Your task to perform on an android device: Open Chrome and go to settings Image 0: 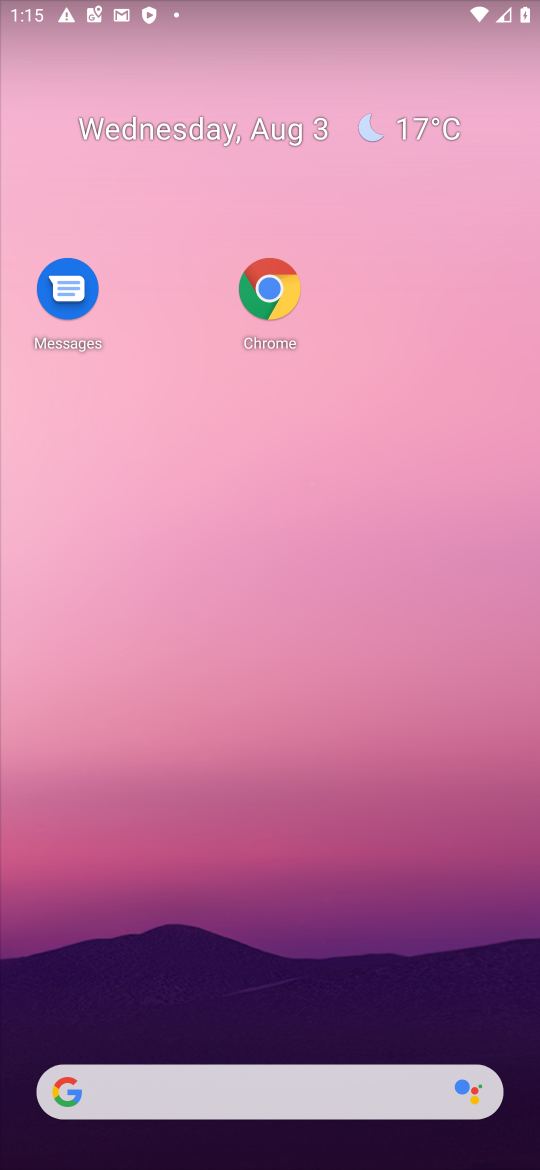
Step 0: click (261, 341)
Your task to perform on an android device: Open Chrome and go to settings Image 1: 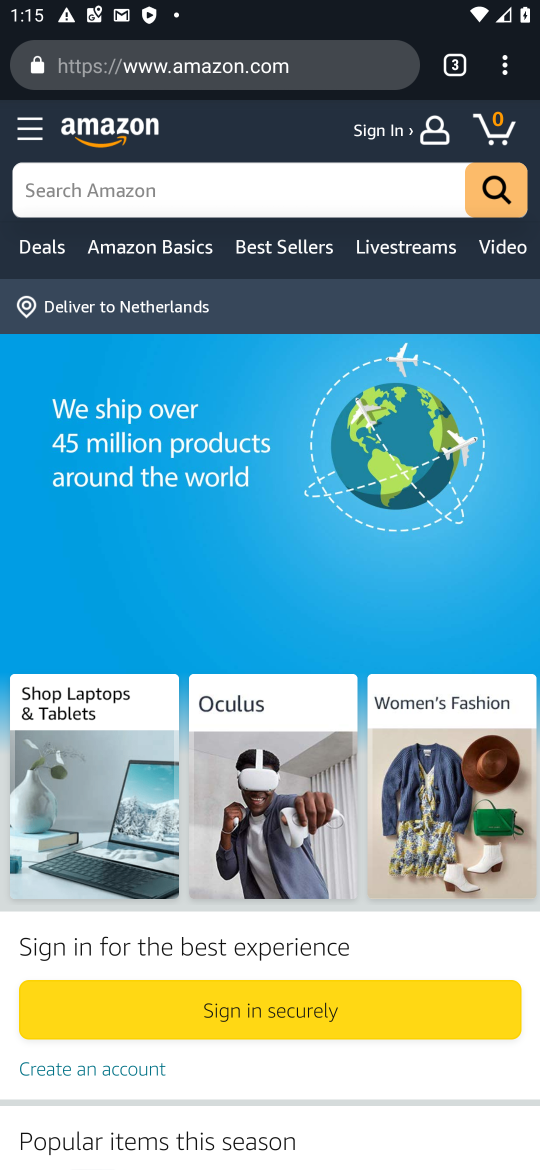
Step 1: click (512, 71)
Your task to perform on an android device: Open Chrome and go to settings Image 2: 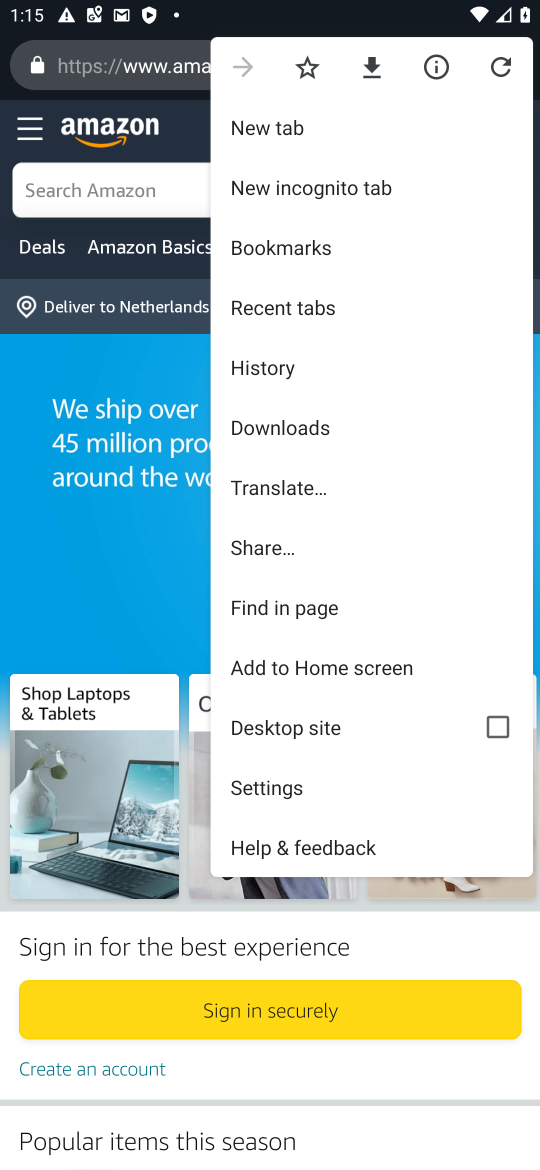
Step 2: click (320, 786)
Your task to perform on an android device: Open Chrome and go to settings Image 3: 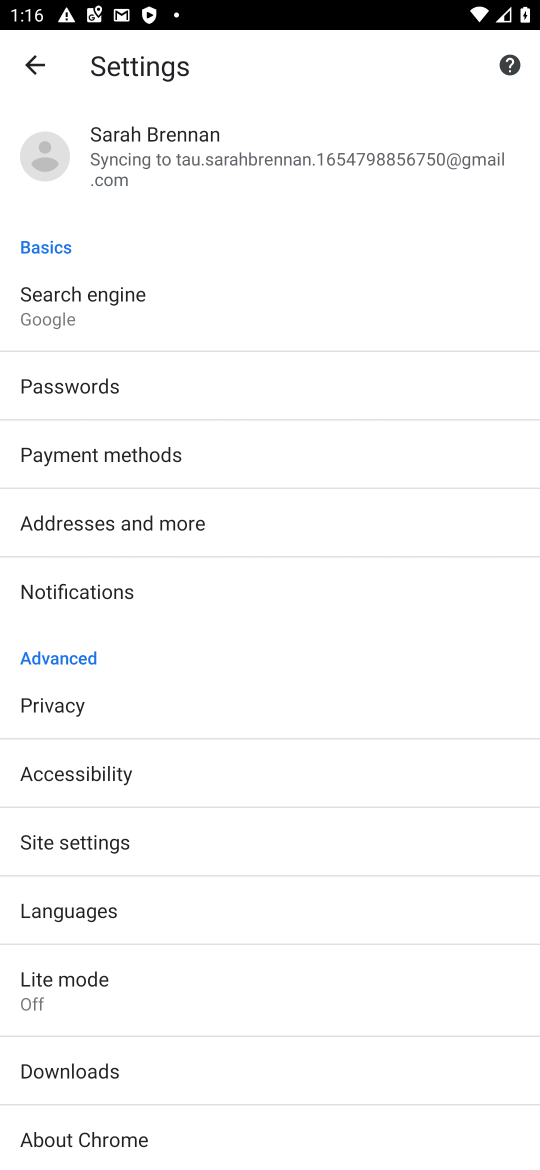
Step 3: task complete